Your task to perform on an android device: open a new tab in the chrome app Image 0: 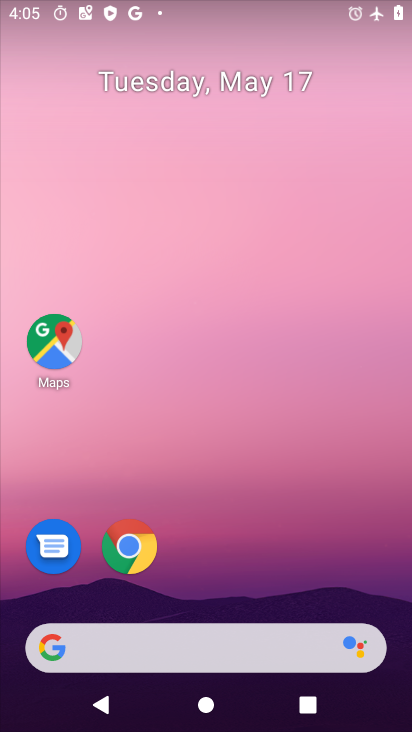
Step 0: click (137, 544)
Your task to perform on an android device: open a new tab in the chrome app Image 1: 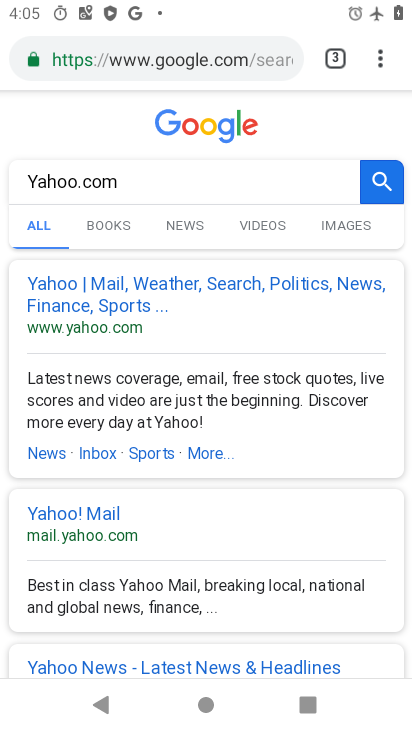
Step 1: click (381, 52)
Your task to perform on an android device: open a new tab in the chrome app Image 2: 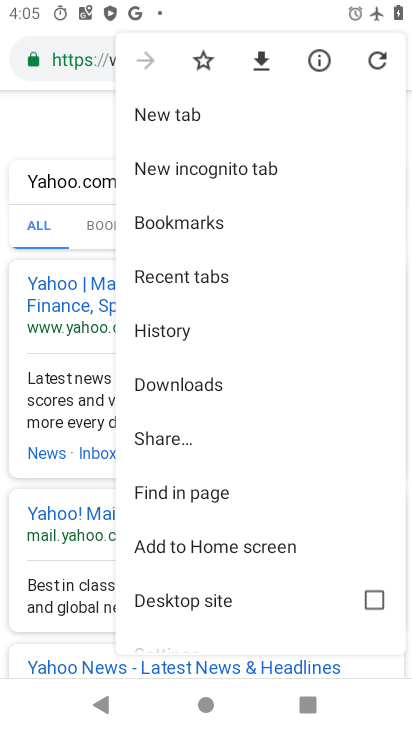
Step 2: click (163, 111)
Your task to perform on an android device: open a new tab in the chrome app Image 3: 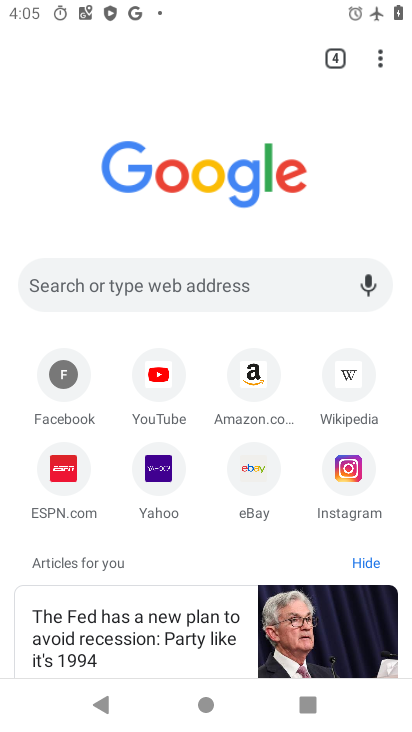
Step 3: task complete